Your task to perform on an android device: Open location settings Image 0: 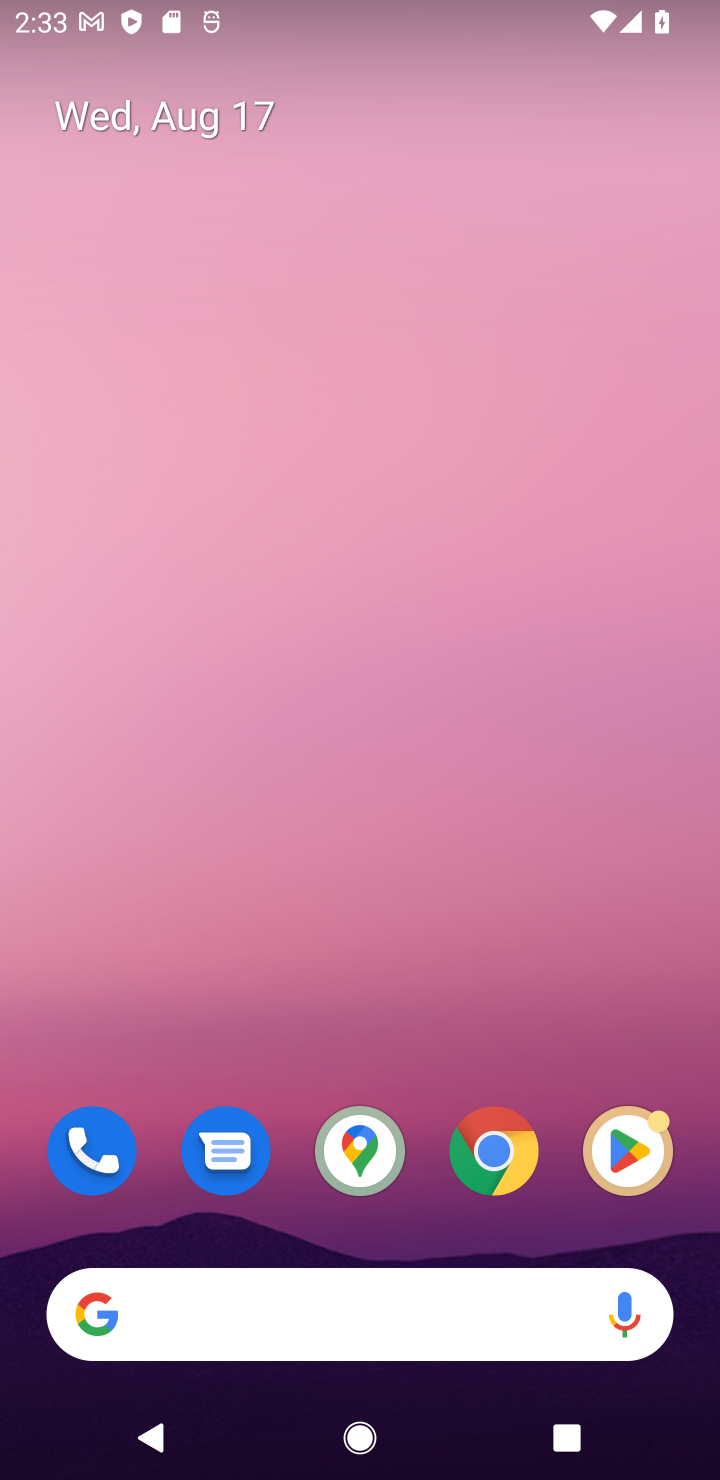
Step 0: drag from (286, 1185) to (469, 27)
Your task to perform on an android device: Open location settings Image 1: 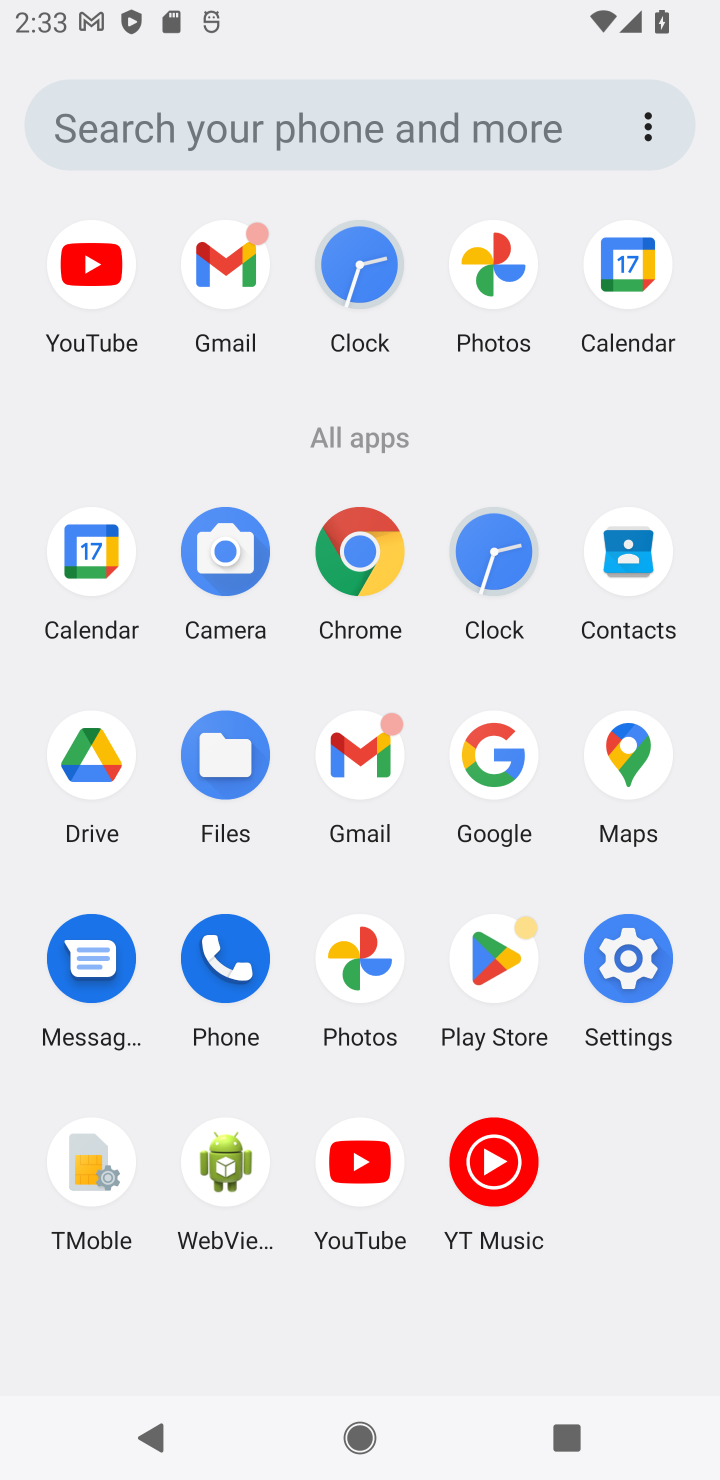
Step 1: click (628, 948)
Your task to perform on an android device: Open location settings Image 2: 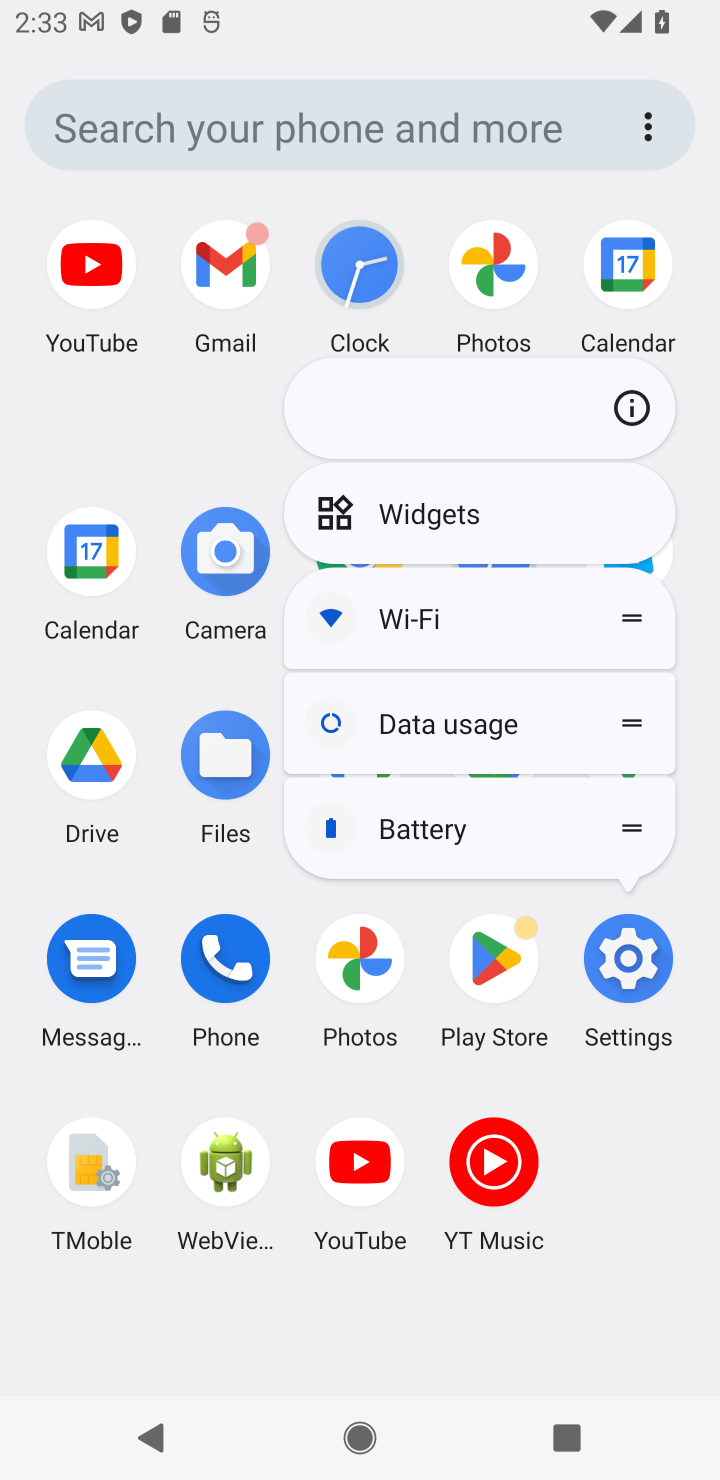
Step 2: click (628, 948)
Your task to perform on an android device: Open location settings Image 3: 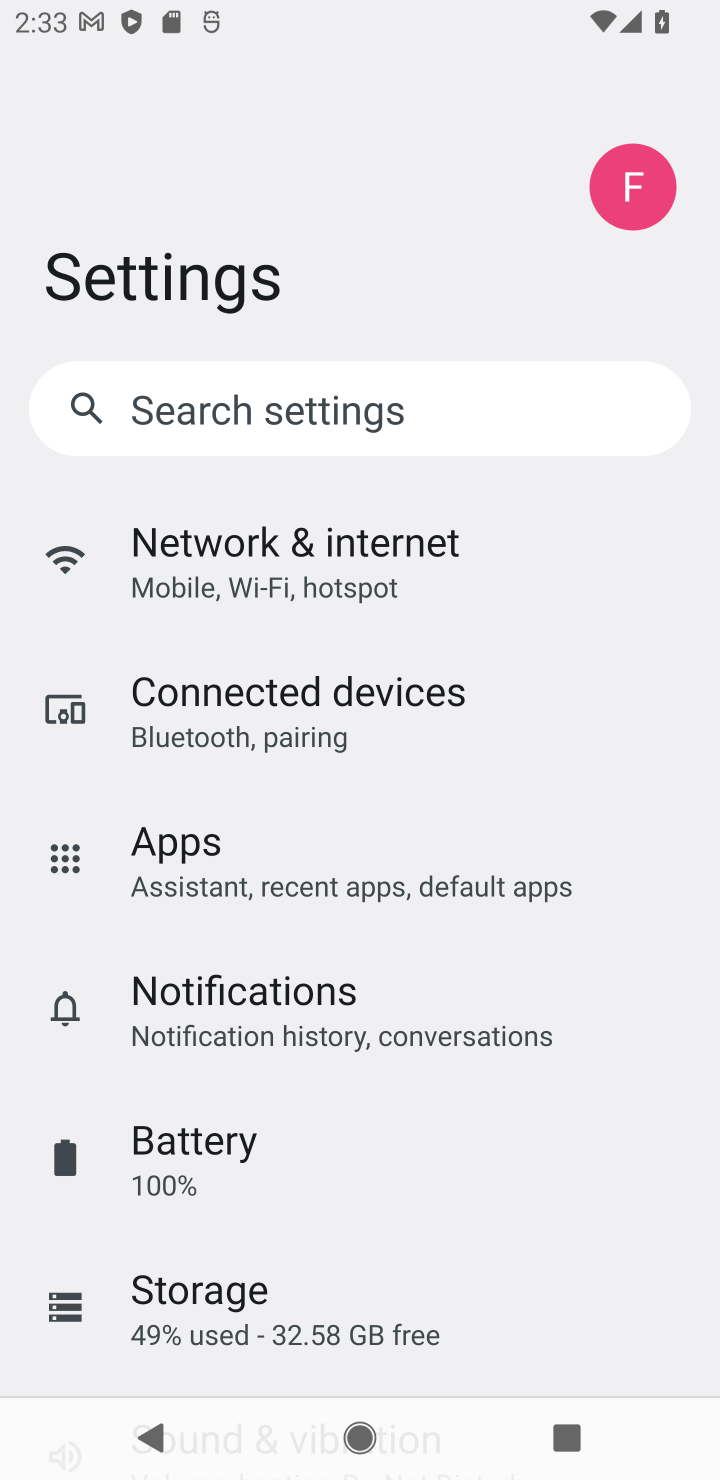
Step 3: drag from (277, 1146) to (452, 543)
Your task to perform on an android device: Open location settings Image 4: 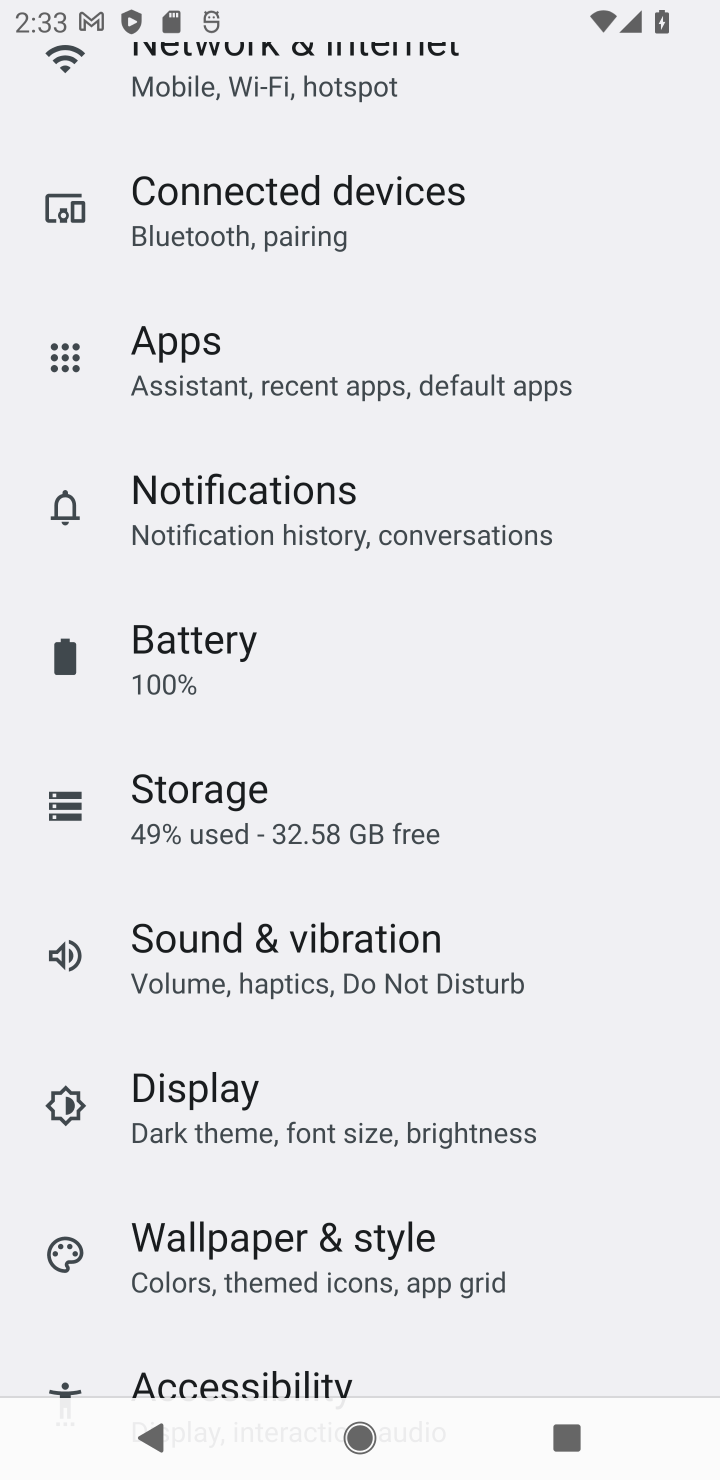
Step 4: drag from (282, 1139) to (416, 1132)
Your task to perform on an android device: Open location settings Image 5: 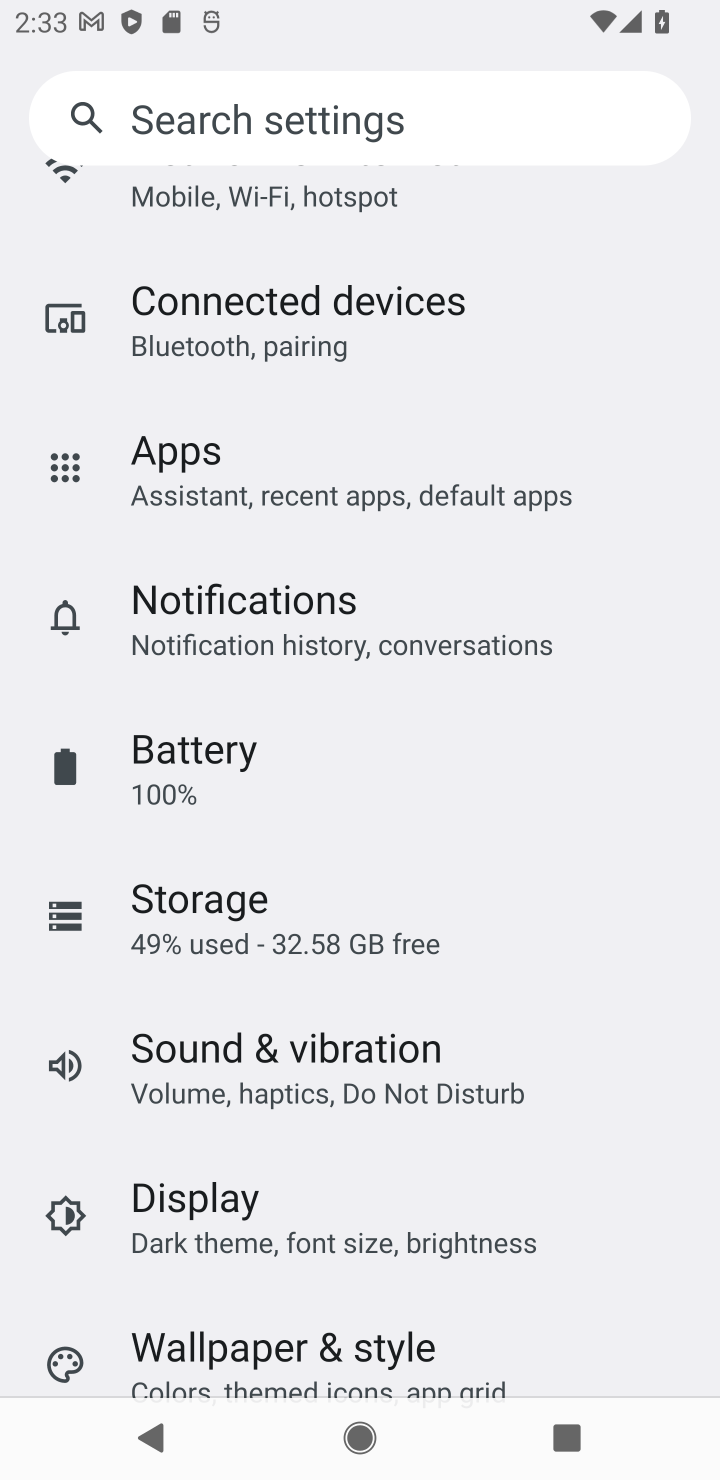
Step 5: drag from (190, 1232) to (388, 268)
Your task to perform on an android device: Open location settings Image 6: 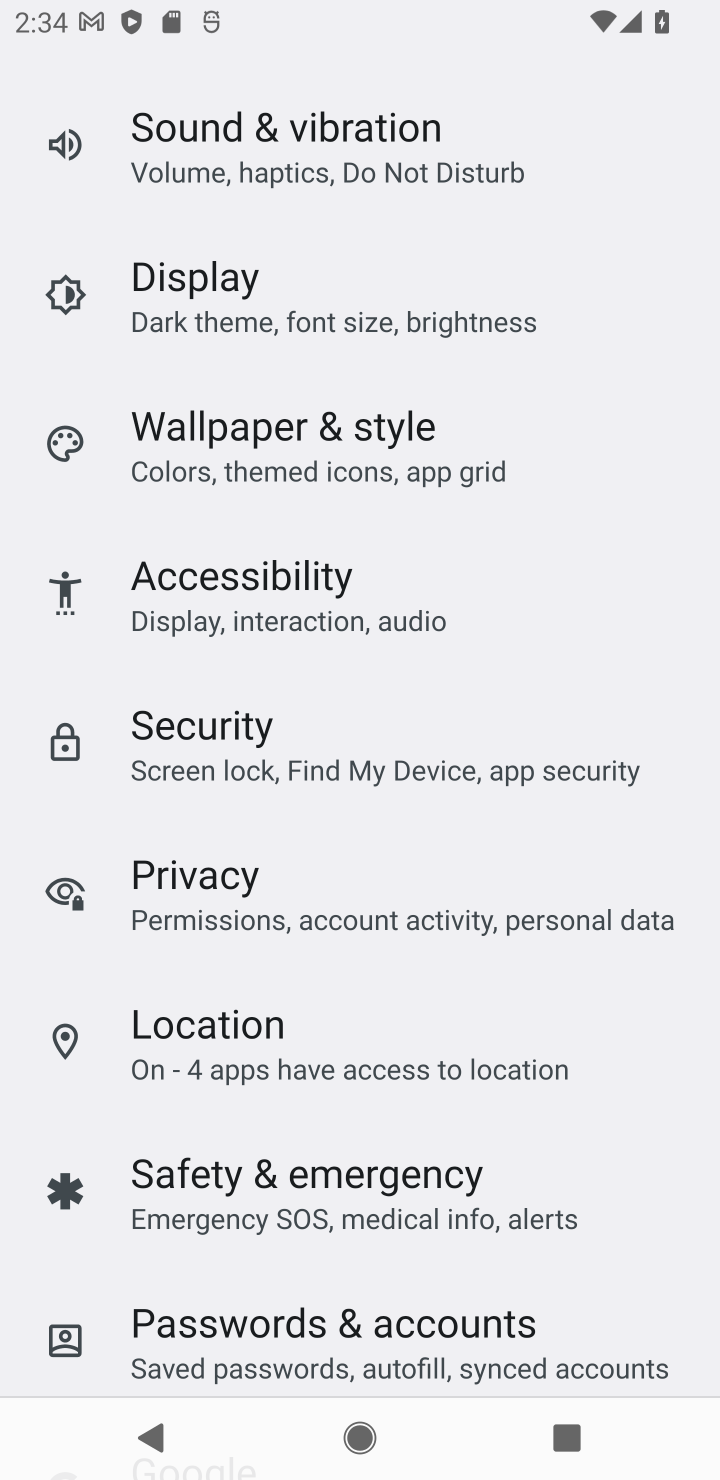
Step 6: click (297, 1017)
Your task to perform on an android device: Open location settings Image 7: 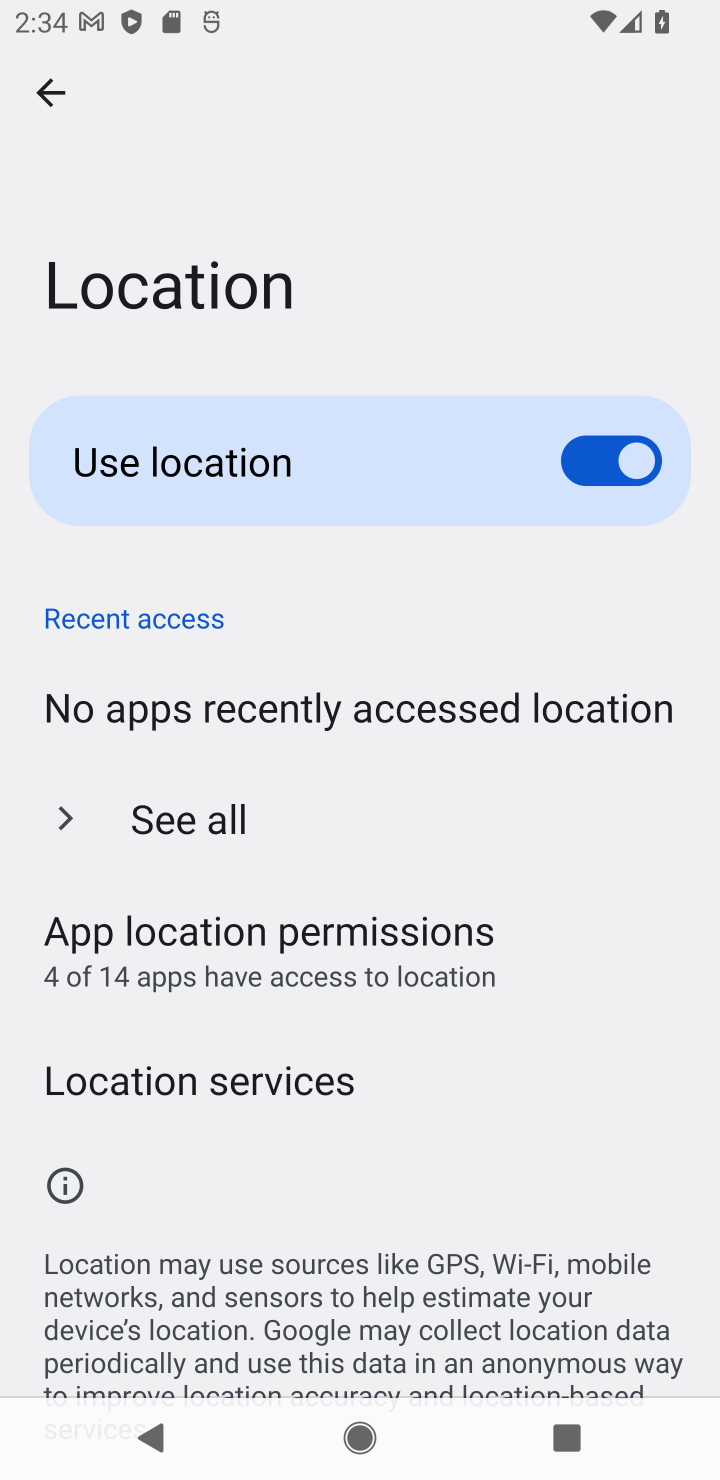
Step 7: task complete